Your task to perform on an android device: see sites visited before in the chrome app Image 0: 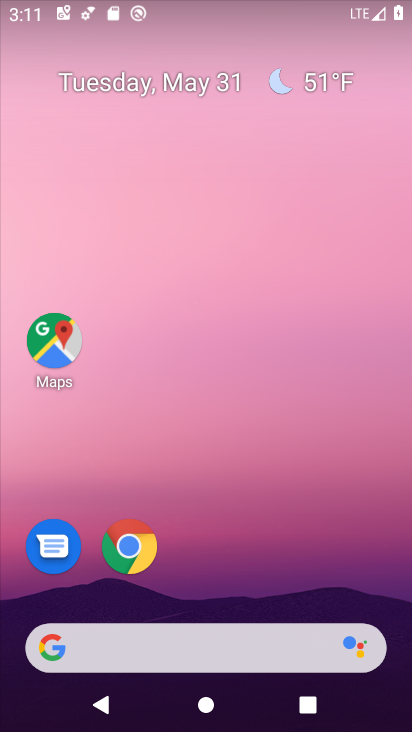
Step 0: click (132, 555)
Your task to perform on an android device: see sites visited before in the chrome app Image 1: 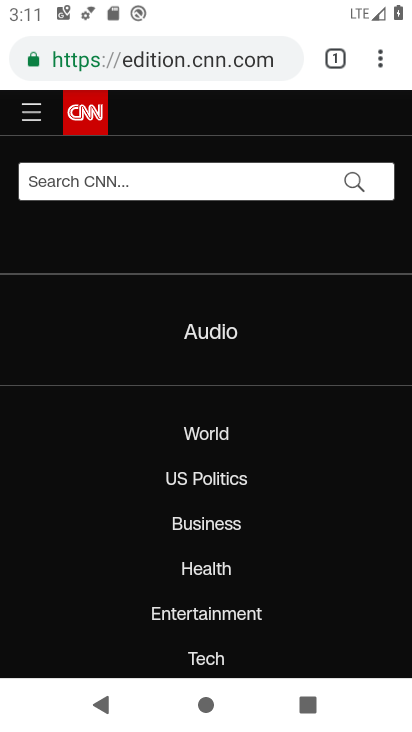
Step 1: click (387, 57)
Your task to perform on an android device: see sites visited before in the chrome app Image 2: 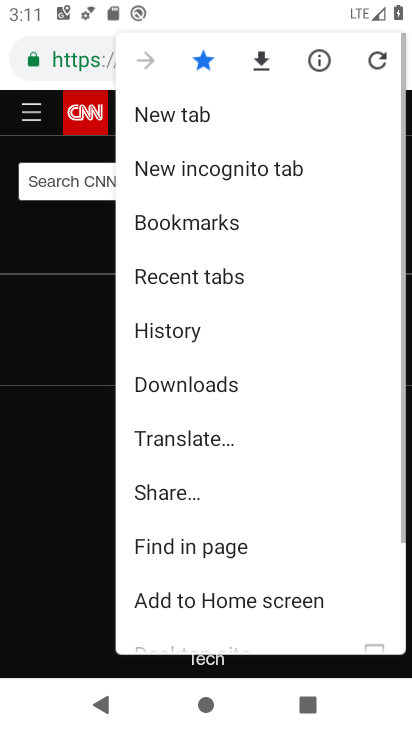
Step 2: click (189, 328)
Your task to perform on an android device: see sites visited before in the chrome app Image 3: 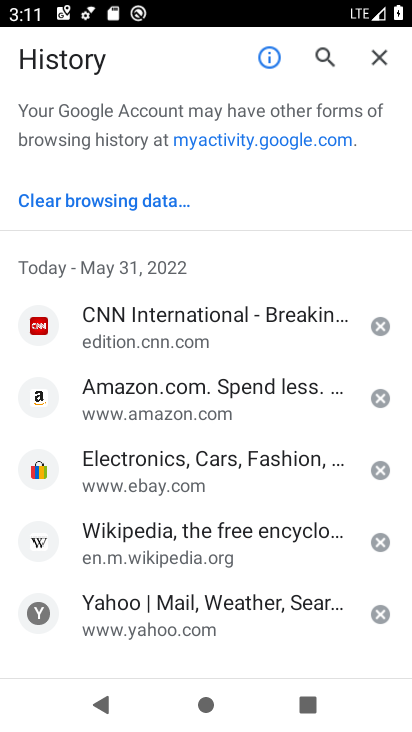
Step 3: task complete